Your task to perform on an android device: Show the shopping cart on walmart. Image 0: 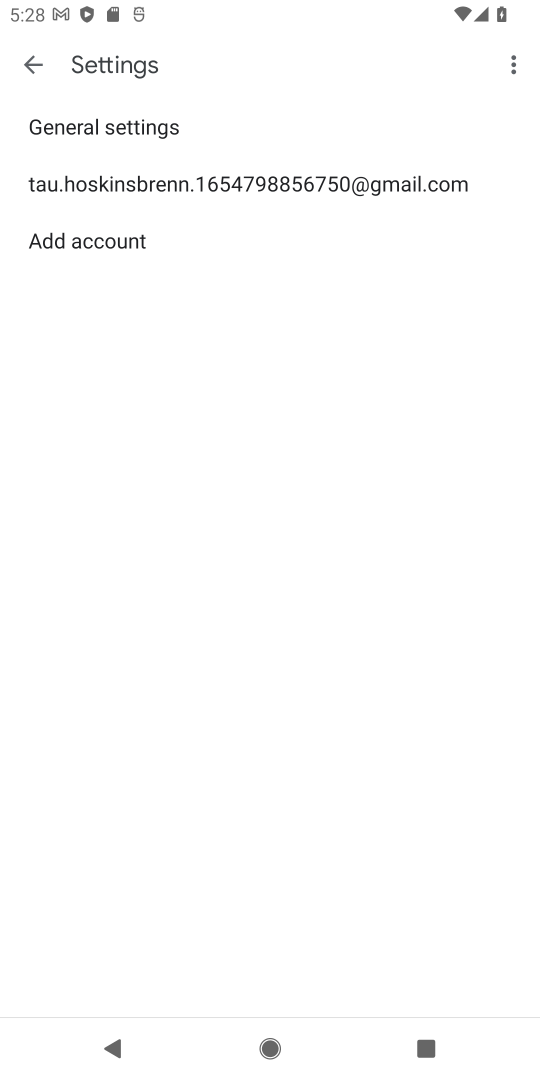
Step 0: press home button
Your task to perform on an android device: Show the shopping cart on walmart. Image 1: 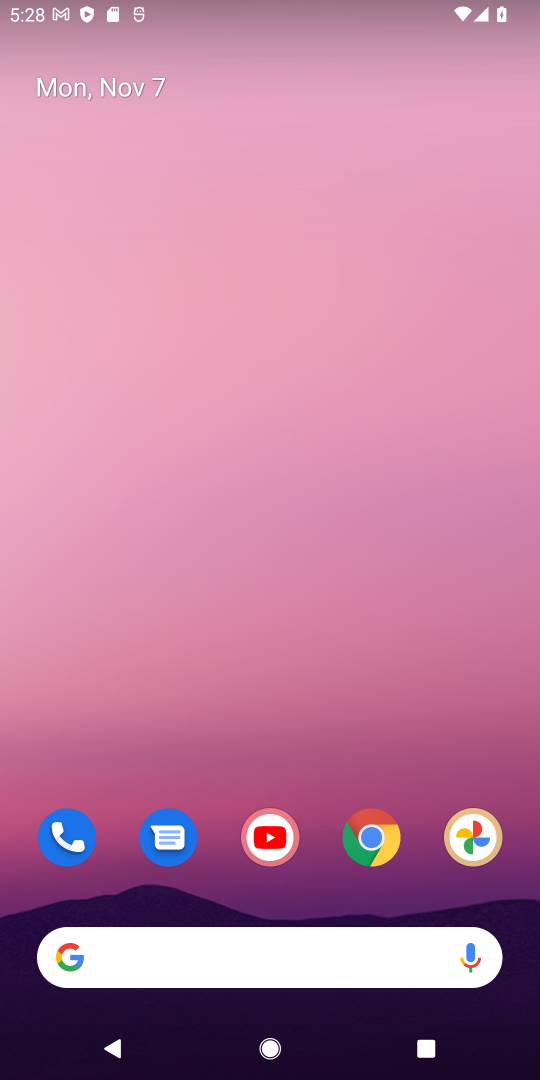
Step 1: click (374, 851)
Your task to perform on an android device: Show the shopping cart on walmart. Image 2: 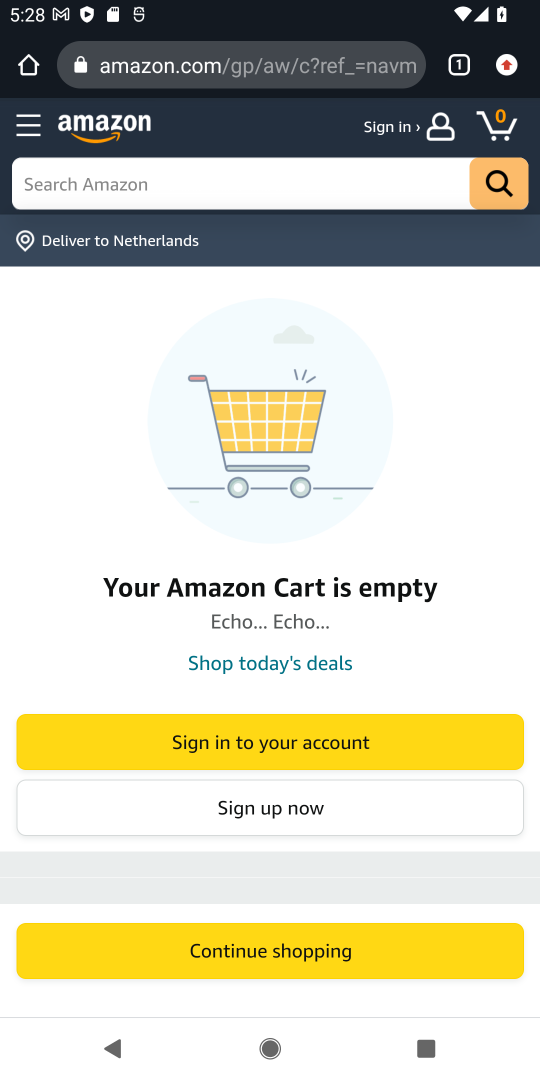
Step 2: click (196, 74)
Your task to perform on an android device: Show the shopping cart on walmart. Image 3: 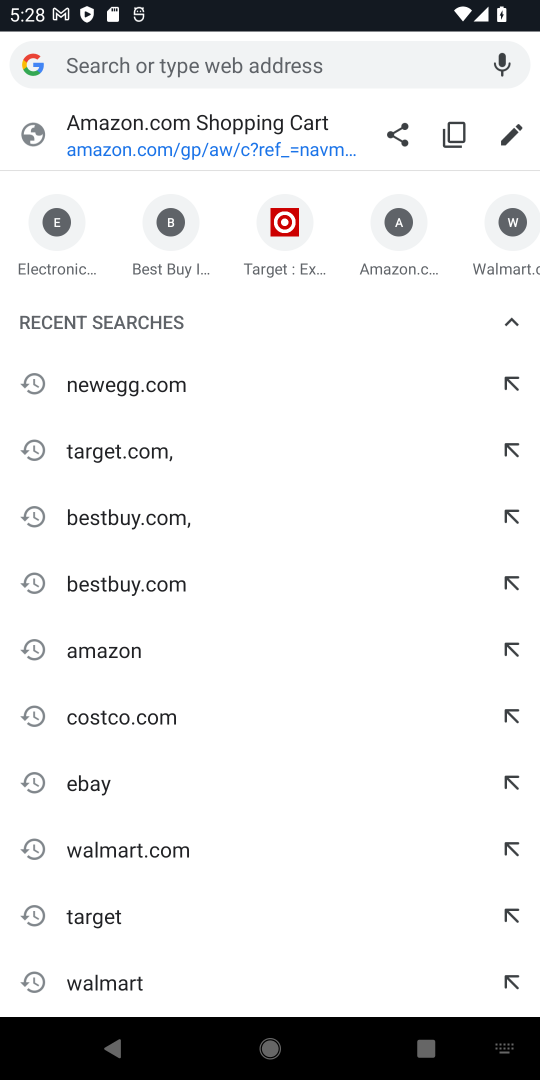
Step 3: type "walmart"
Your task to perform on an android device: Show the shopping cart on walmart. Image 4: 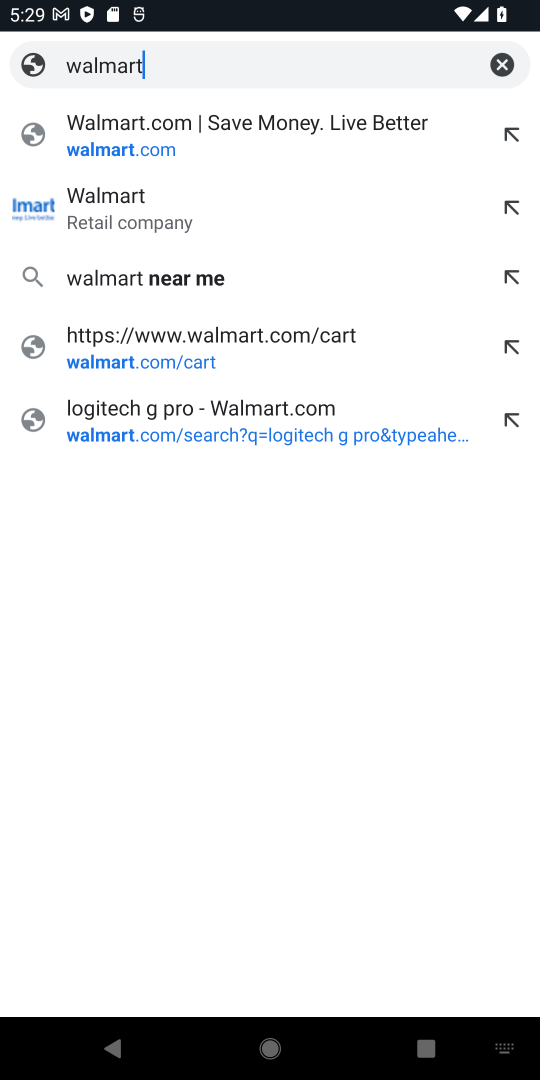
Step 4: click (214, 124)
Your task to perform on an android device: Show the shopping cart on walmart. Image 5: 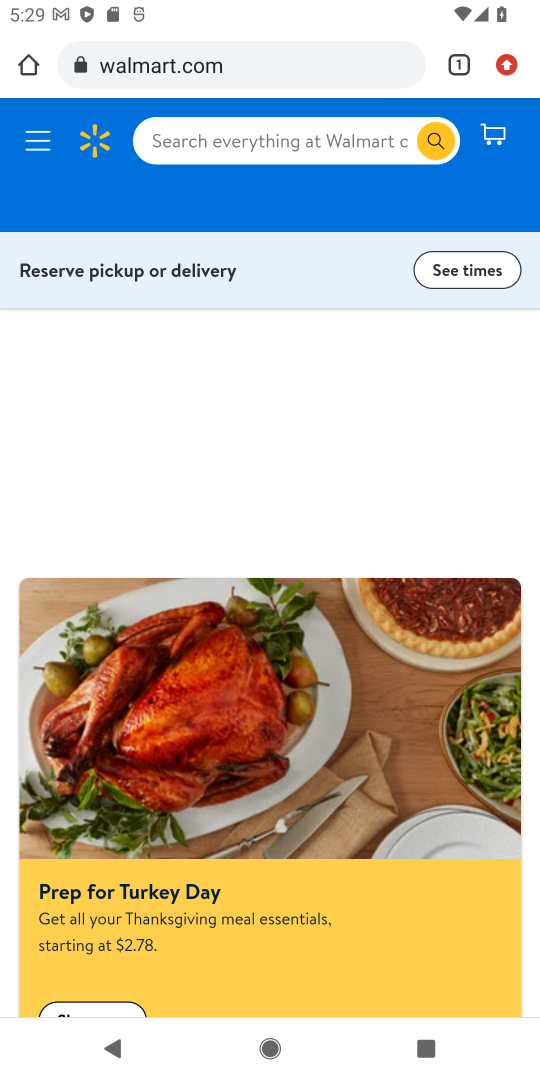
Step 5: click (510, 142)
Your task to perform on an android device: Show the shopping cart on walmart. Image 6: 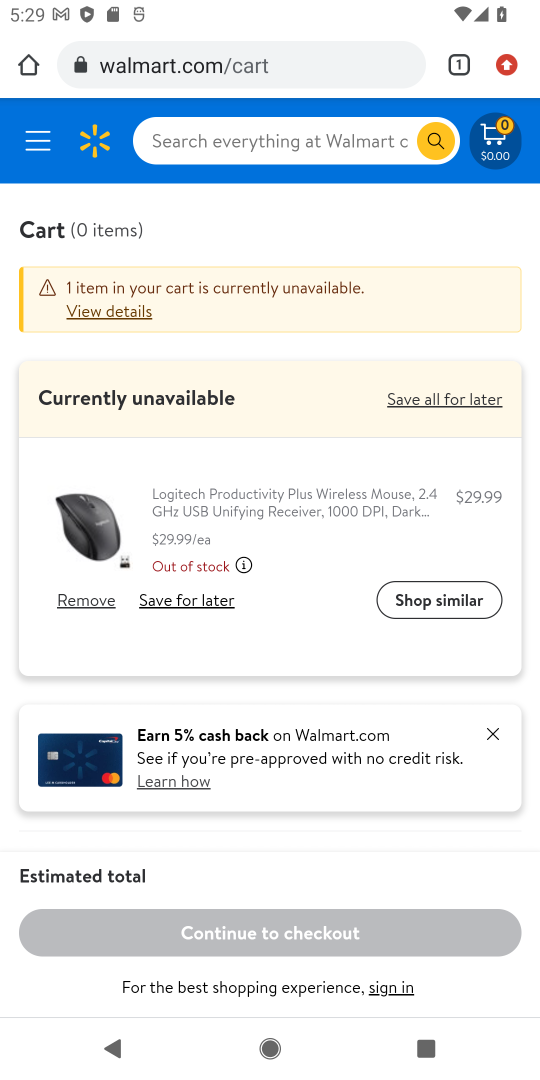
Step 6: click (90, 594)
Your task to perform on an android device: Show the shopping cart on walmart. Image 7: 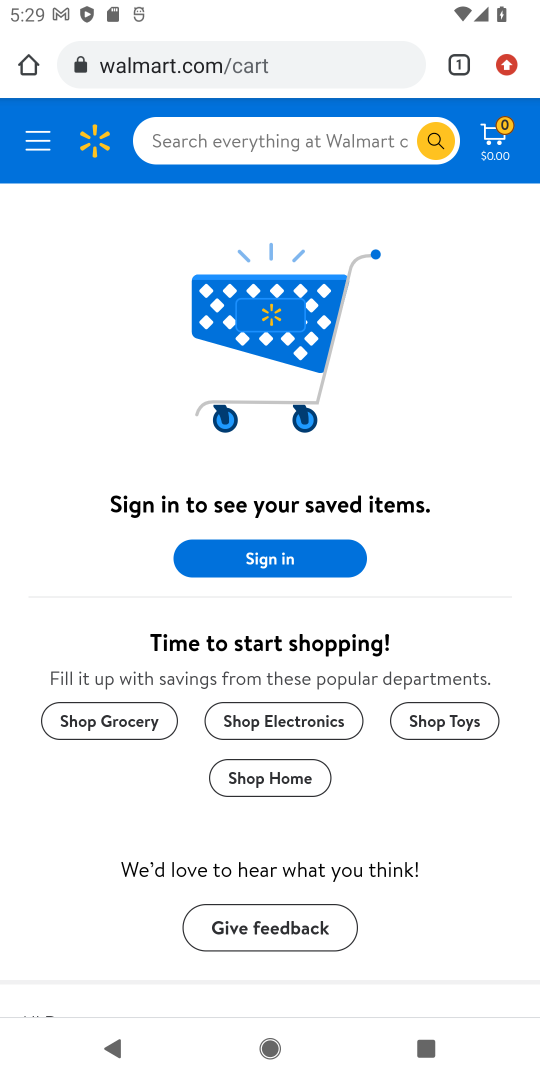
Step 7: task complete